Your task to perform on an android device: Open Yahoo.com Image 0: 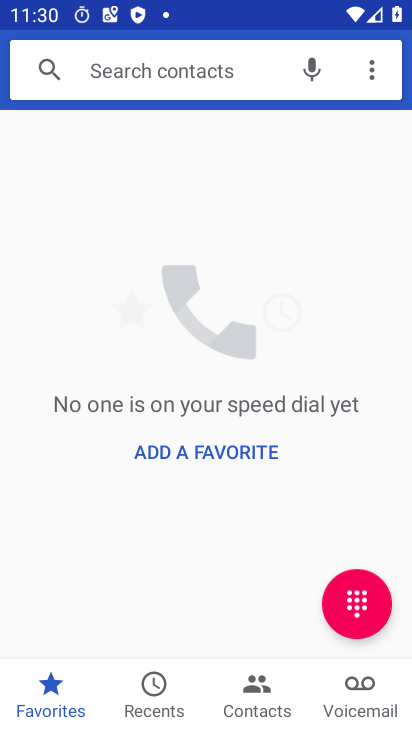
Step 0: press back button
Your task to perform on an android device: Open Yahoo.com Image 1: 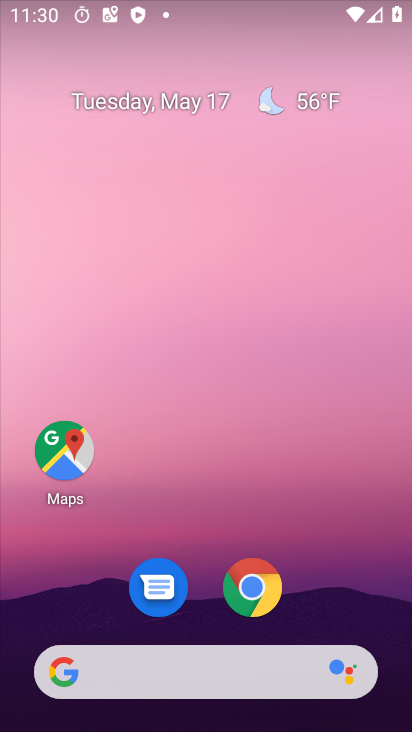
Step 1: click (251, 586)
Your task to perform on an android device: Open Yahoo.com Image 2: 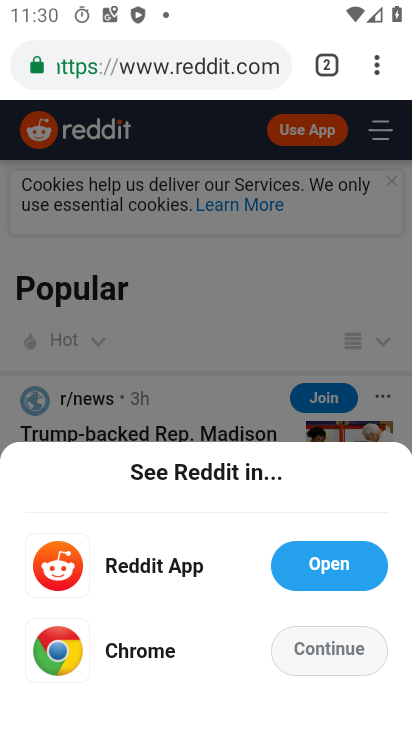
Step 2: click (255, 71)
Your task to perform on an android device: Open Yahoo.com Image 3: 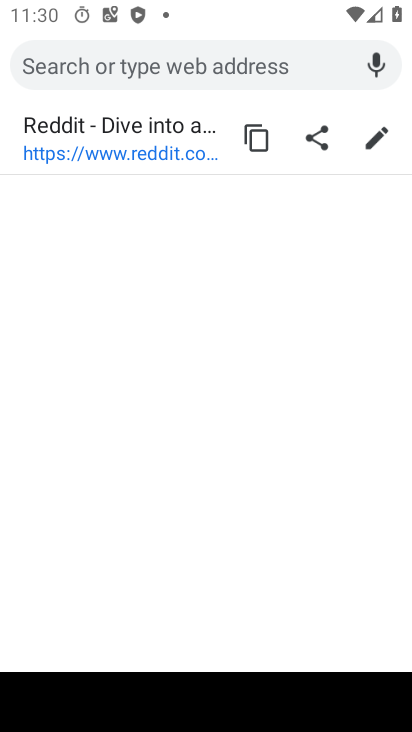
Step 3: type "Yahoo.com"
Your task to perform on an android device: Open Yahoo.com Image 4: 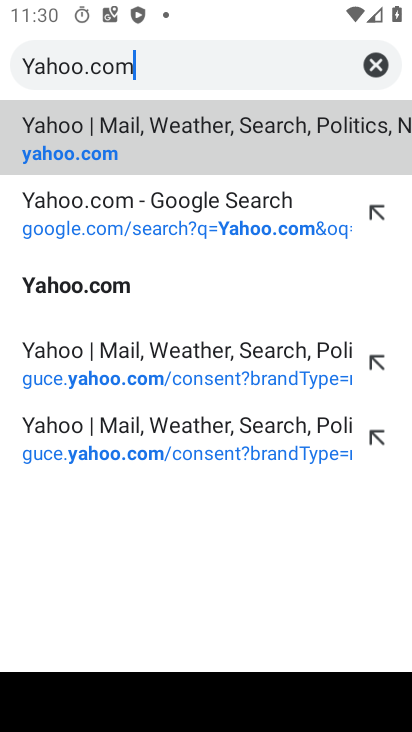
Step 4: click (100, 280)
Your task to perform on an android device: Open Yahoo.com Image 5: 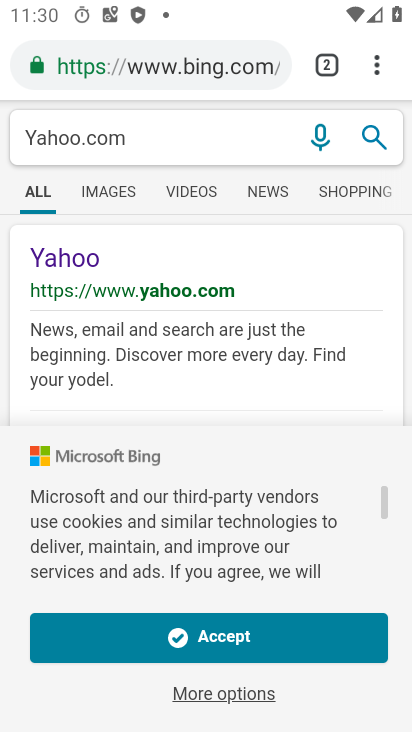
Step 5: click (117, 292)
Your task to perform on an android device: Open Yahoo.com Image 6: 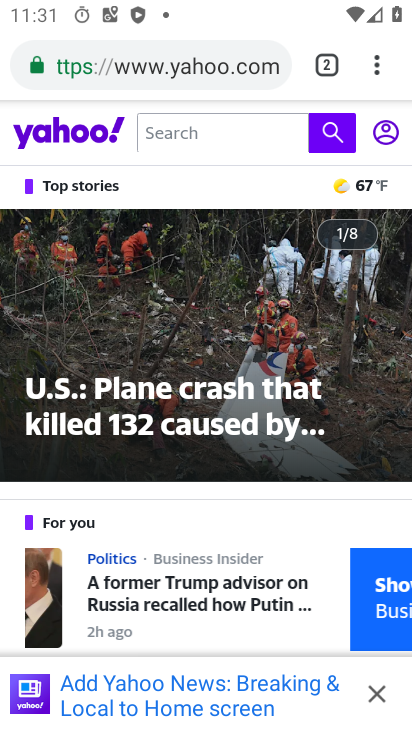
Step 6: task complete